Your task to perform on an android device: Go to display settings Image 0: 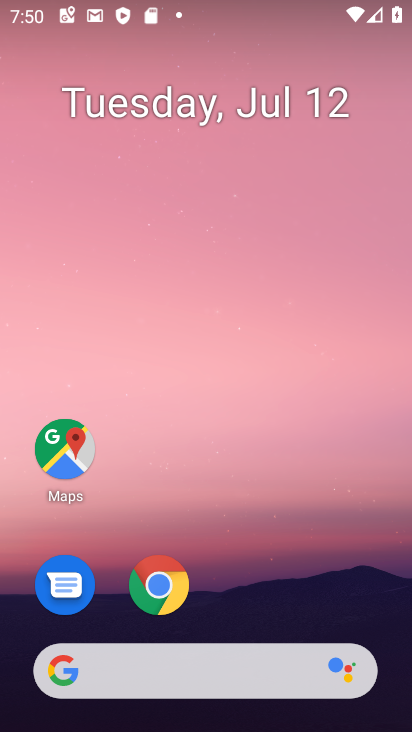
Step 0: drag from (278, 568) to (275, 3)
Your task to perform on an android device: Go to display settings Image 1: 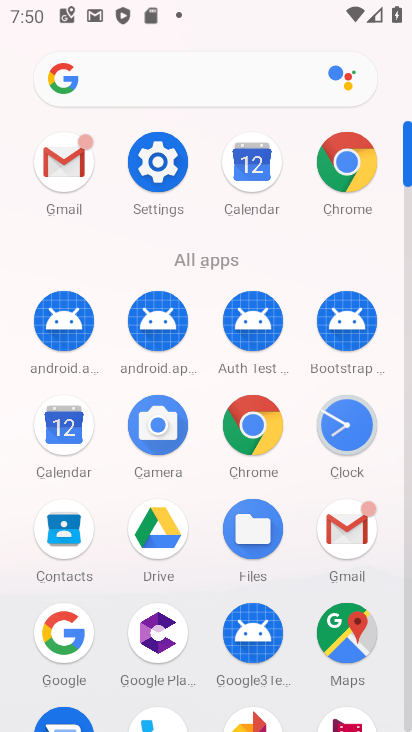
Step 1: click (162, 165)
Your task to perform on an android device: Go to display settings Image 2: 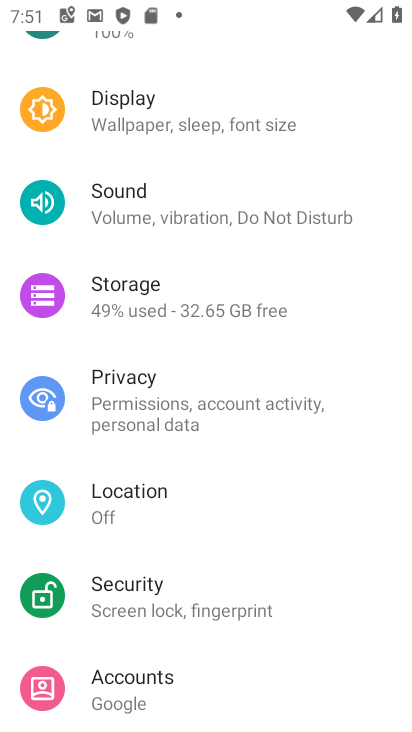
Step 2: click (195, 114)
Your task to perform on an android device: Go to display settings Image 3: 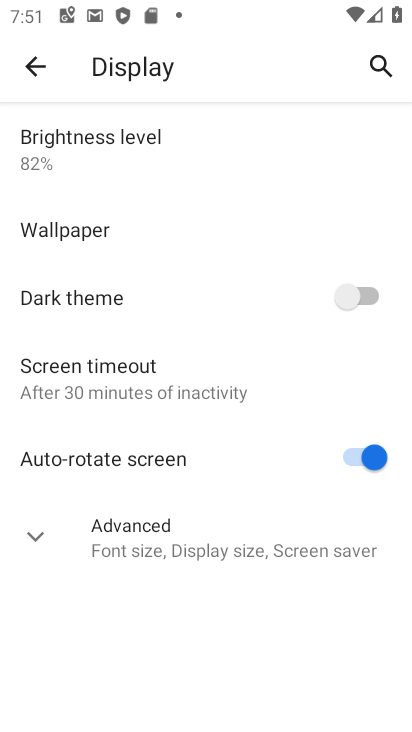
Step 3: task complete